Your task to perform on an android device: open app "Facebook Lite" Image 0: 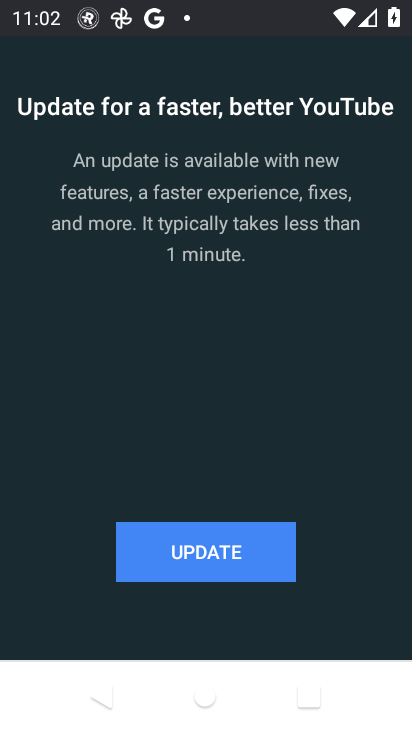
Step 0: press back button
Your task to perform on an android device: open app "Facebook Lite" Image 1: 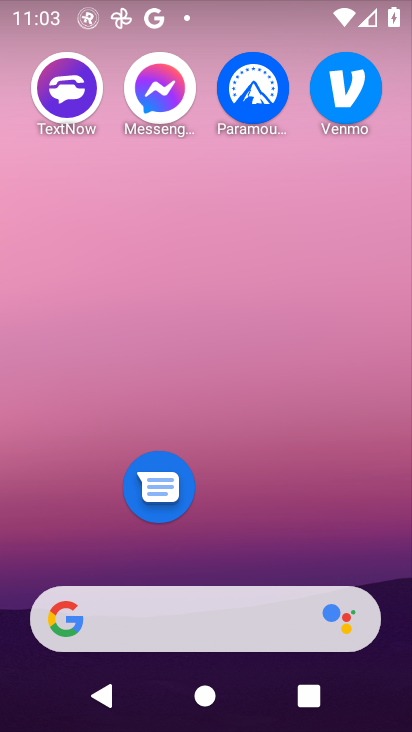
Step 1: drag from (263, 609) to (230, 166)
Your task to perform on an android device: open app "Facebook Lite" Image 2: 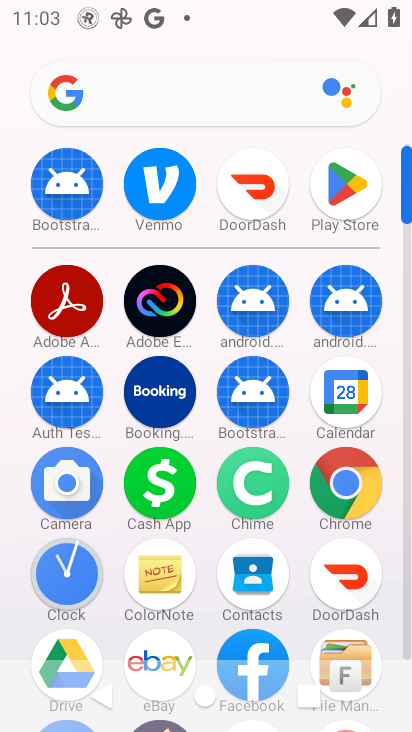
Step 2: click (353, 170)
Your task to perform on an android device: open app "Facebook Lite" Image 3: 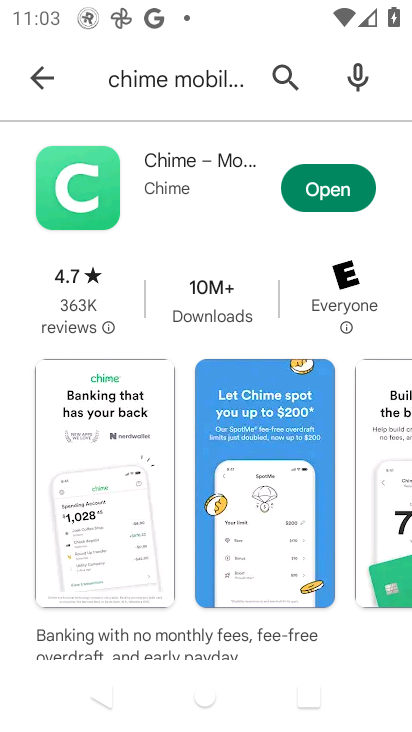
Step 3: click (39, 60)
Your task to perform on an android device: open app "Facebook Lite" Image 4: 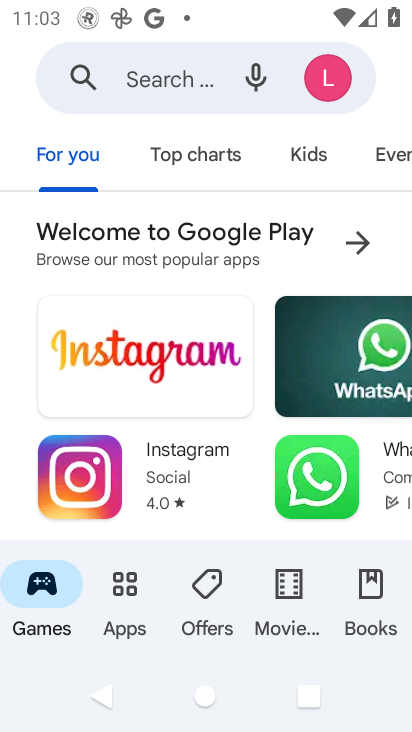
Step 4: click (152, 103)
Your task to perform on an android device: open app "Facebook Lite" Image 5: 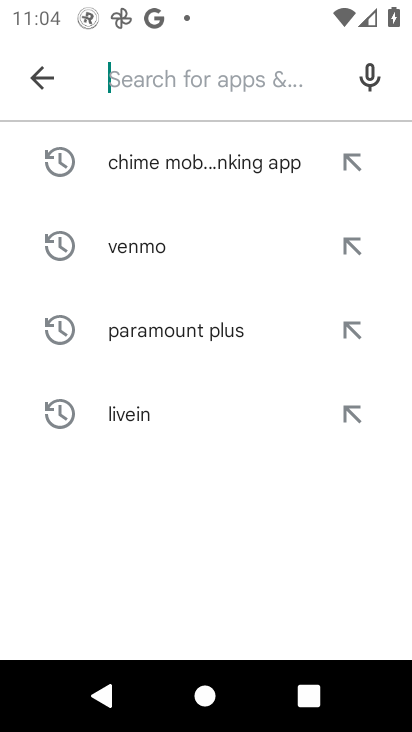
Step 5: type "Facebook Lite"
Your task to perform on an android device: open app "Facebook Lite" Image 6: 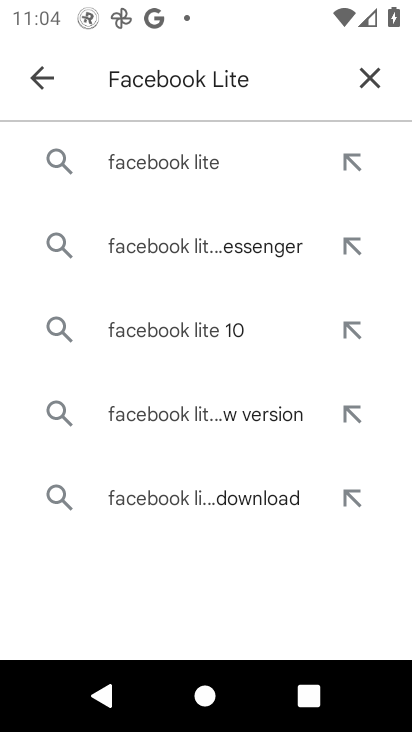
Step 6: click (148, 165)
Your task to perform on an android device: open app "Facebook Lite" Image 7: 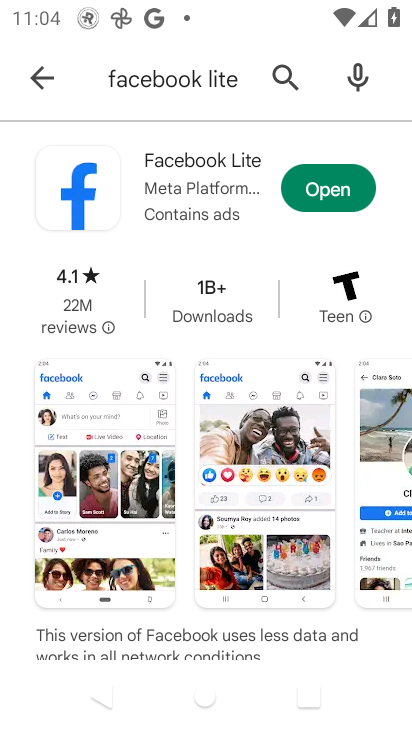
Step 7: click (332, 189)
Your task to perform on an android device: open app "Facebook Lite" Image 8: 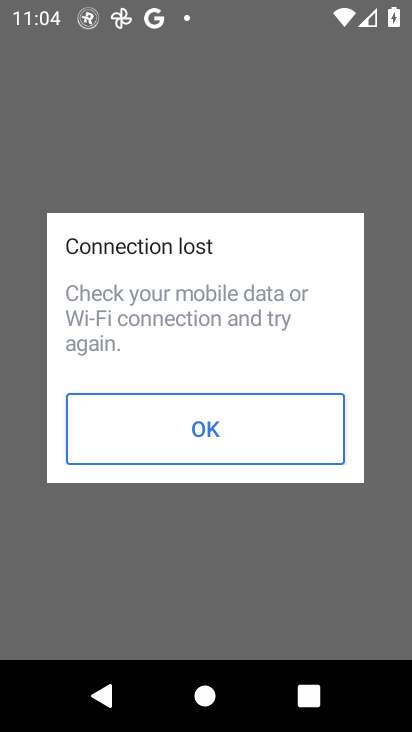
Step 8: click (208, 422)
Your task to perform on an android device: open app "Facebook Lite" Image 9: 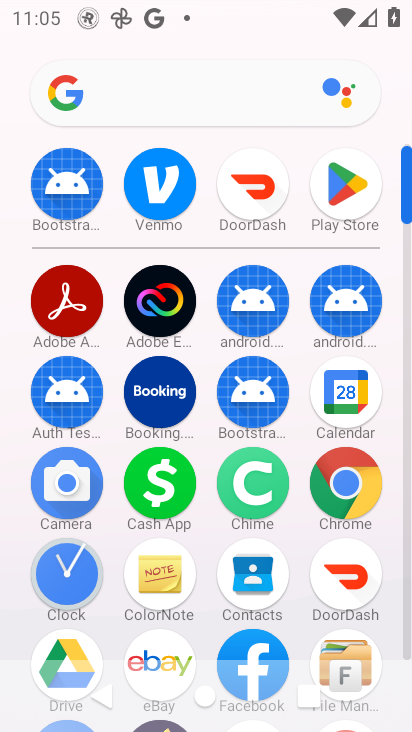
Step 9: click (361, 182)
Your task to perform on an android device: open app "Facebook Lite" Image 10: 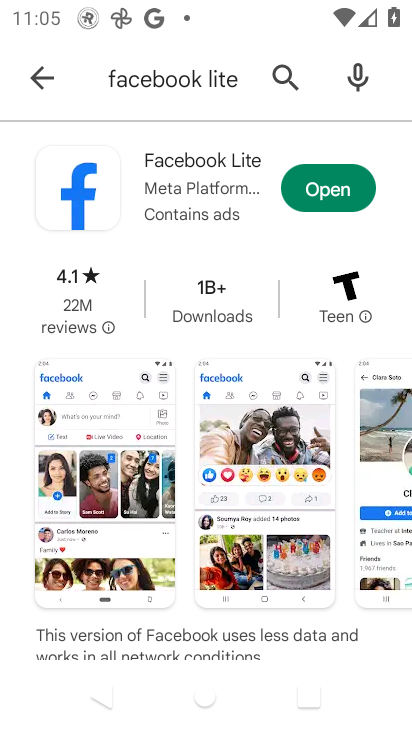
Step 10: click (342, 217)
Your task to perform on an android device: open app "Facebook Lite" Image 11: 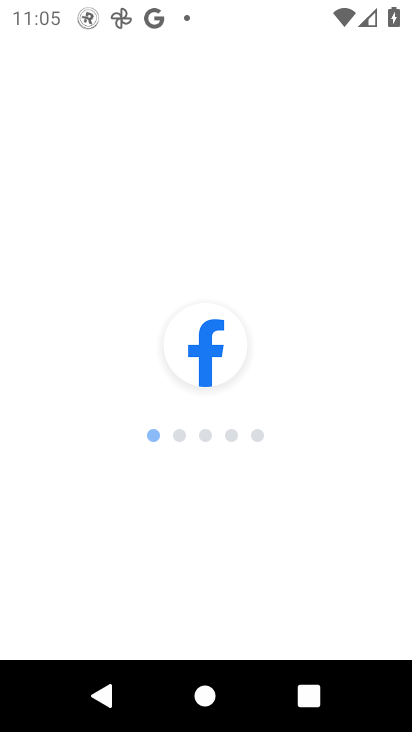
Step 11: click (185, 433)
Your task to perform on an android device: open app "Facebook Lite" Image 12: 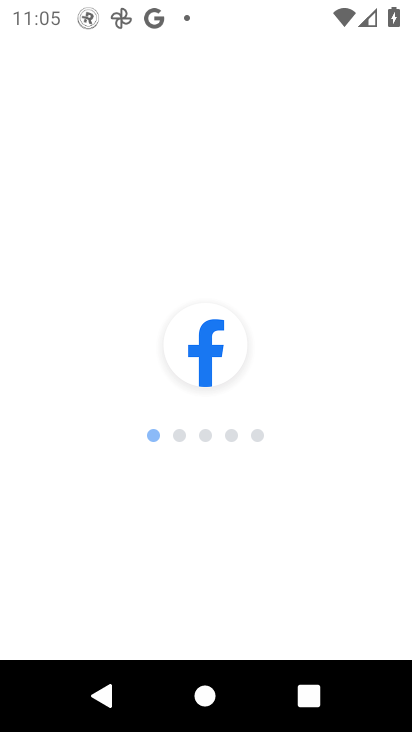
Step 12: click (185, 427)
Your task to perform on an android device: open app "Facebook Lite" Image 13: 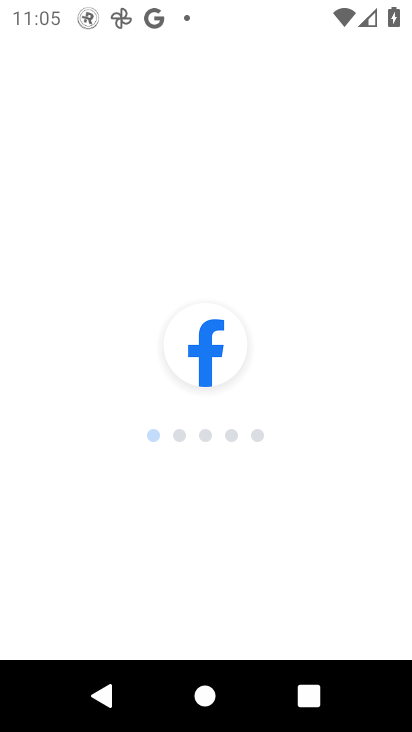
Step 13: click (222, 434)
Your task to perform on an android device: open app "Facebook Lite" Image 14: 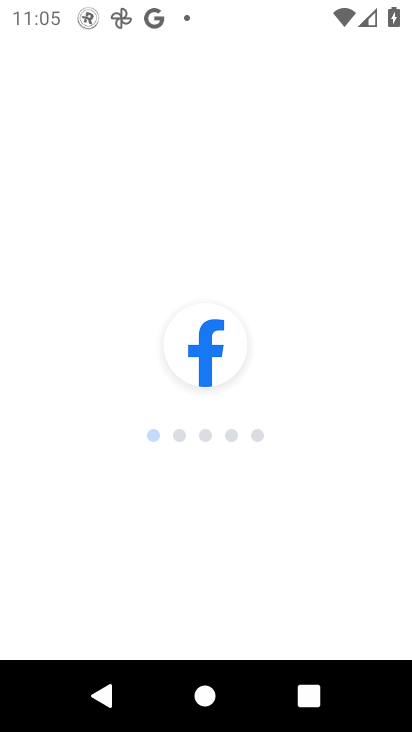
Step 14: task complete